Your task to perform on an android device: change the clock display to digital Image 0: 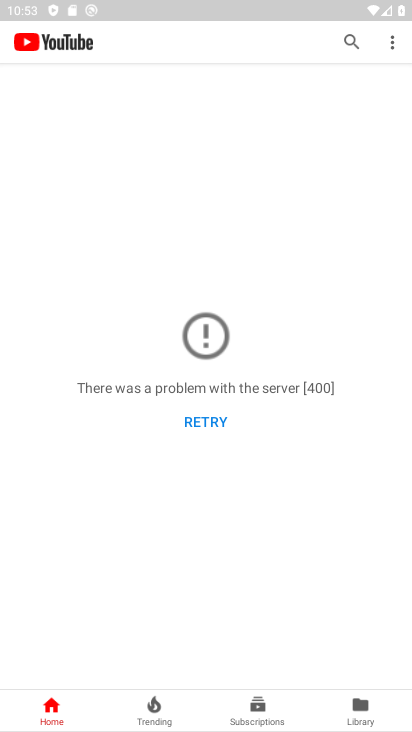
Step 0: press home button
Your task to perform on an android device: change the clock display to digital Image 1: 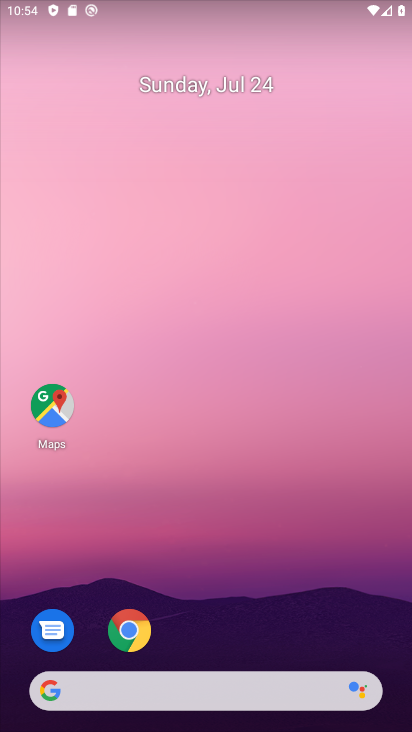
Step 1: drag from (226, 604) to (166, 54)
Your task to perform on an android device: change the clock display to digital Image 2: 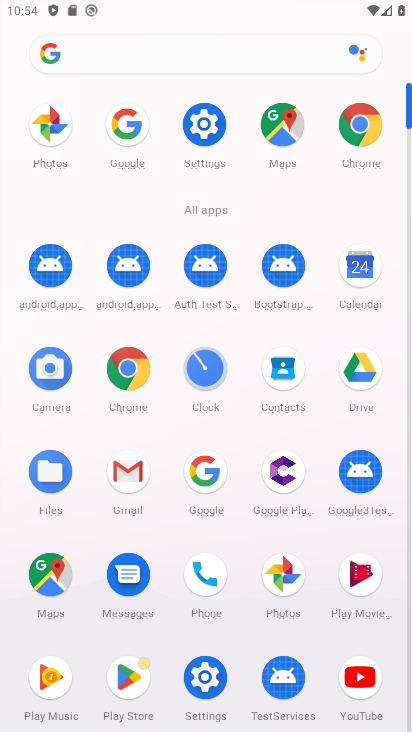
Step 2: click (196, 362)
Your task to perform on an android device: change the clock display to digital Image 3: 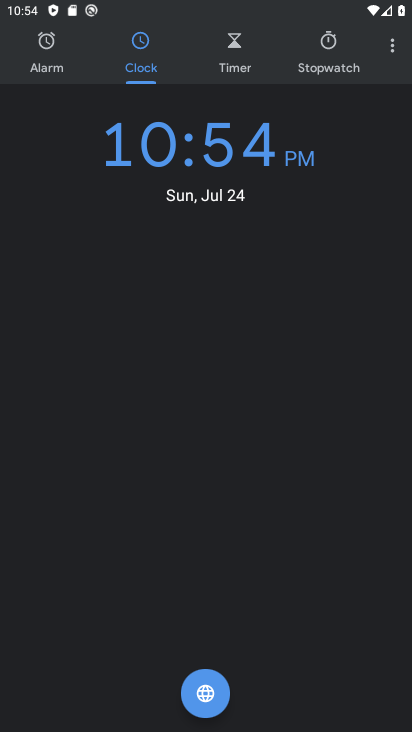
Step 3: click (398, 49)
Your task to perform on an android device: change the clock display to digital Image 4: 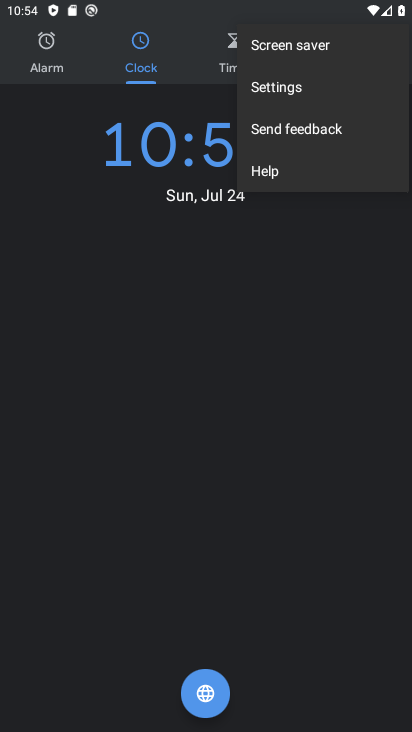
Step 4: click (299, 87)
Your task to perform on an android device: change the clock display to digital Image 5: 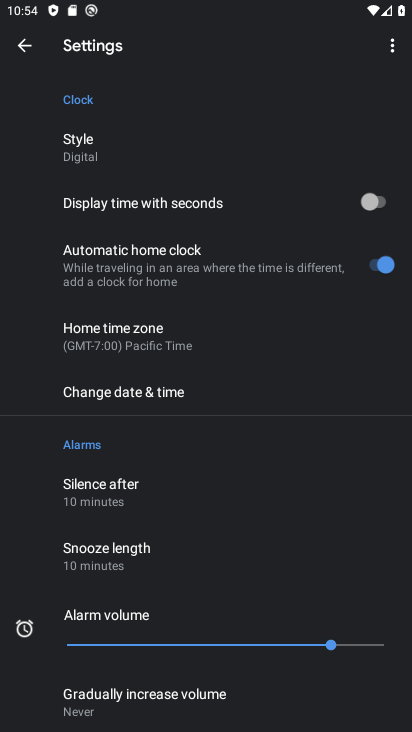
Step 5: click (99, 150)
Your task to perform on an android device: change the clock display to digital Image 6: 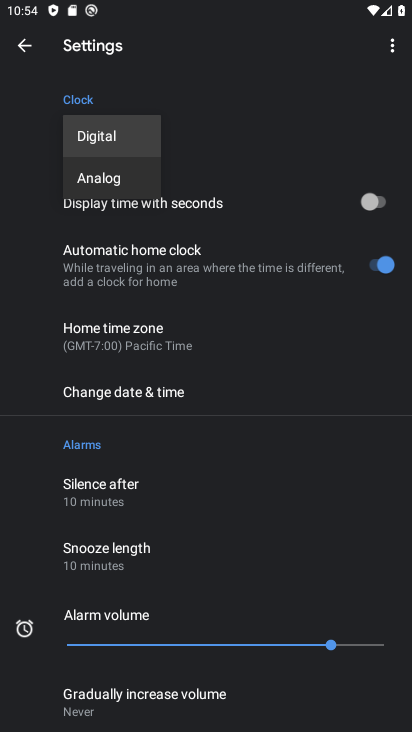
Step 6: click (111, 140)
Your task to perform on an android device: change the clock display to digital Image 7: 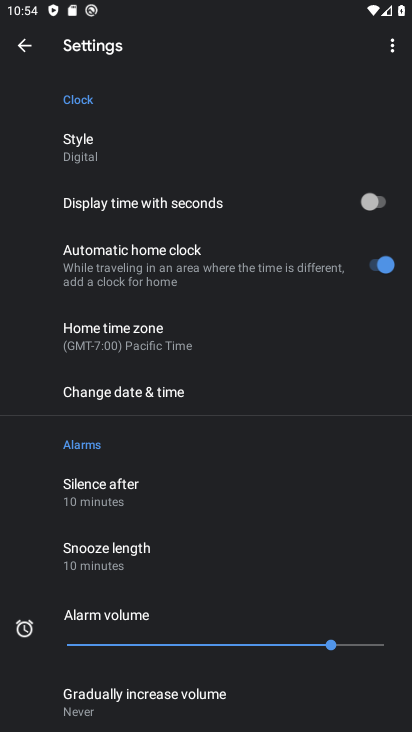
Step 7: task complete